Your task to perform on an android device: change the upload size in google photos Image 0: 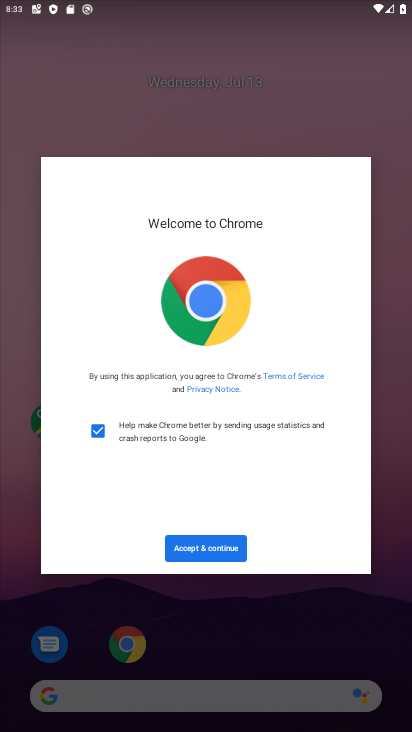
Step 0: press home button
Your task to perform on an android device: change the upload size in google photos Image 1: 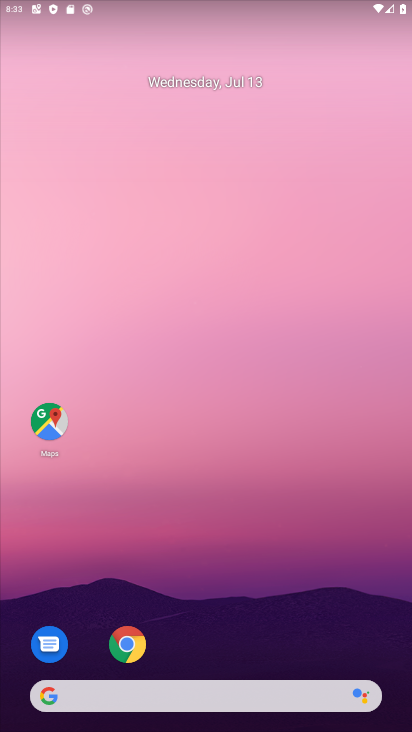
Step 1: drag from (309, 589) to (409, 455)
Your task to perform on an android device: change the upload size in google photos Image 2: 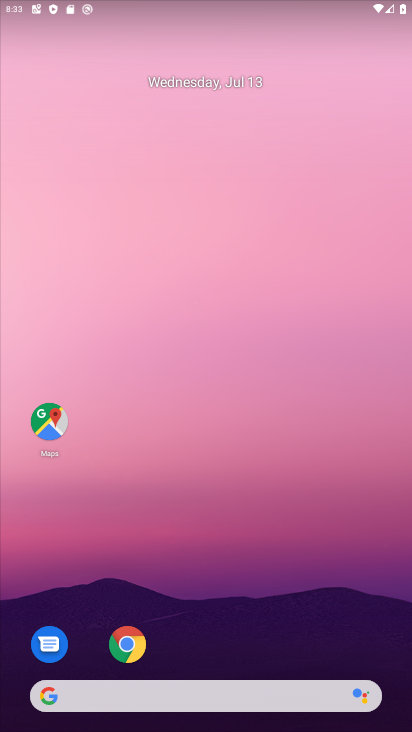
Step 2: drag from (236, 537) to (155, 80)
Your task to perform on an android device: change the upload size in google photos Image 3: 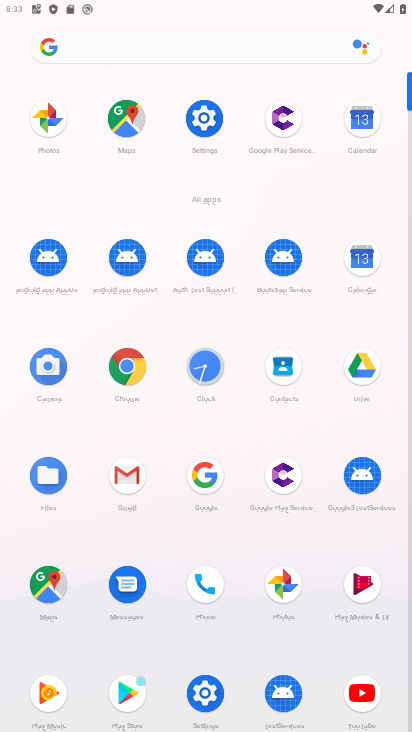
Step 3: click (294, 590)
Your task to perform on an android device: change the upload size in google photos Image 4: 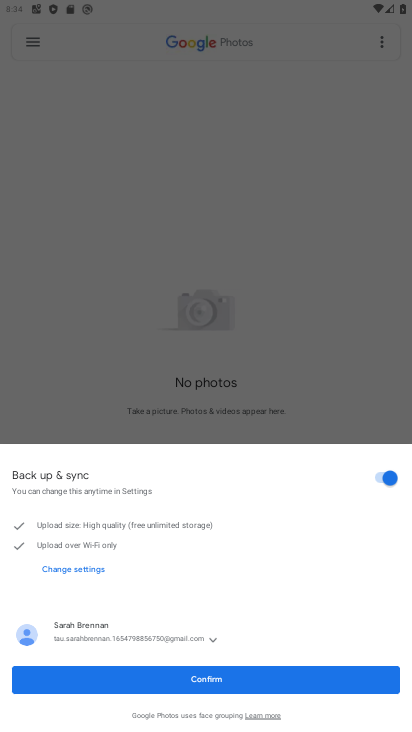
Step 4: click (272, 679)
Your task to perform on an android device: change the upload size in google photos Image 5: 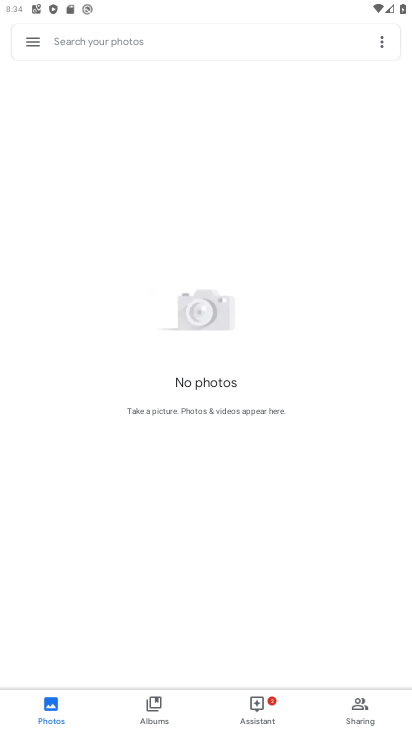
Step 5: click (31, 42)
Your task to perform on an android device: change the upload size in google photos Image 6: 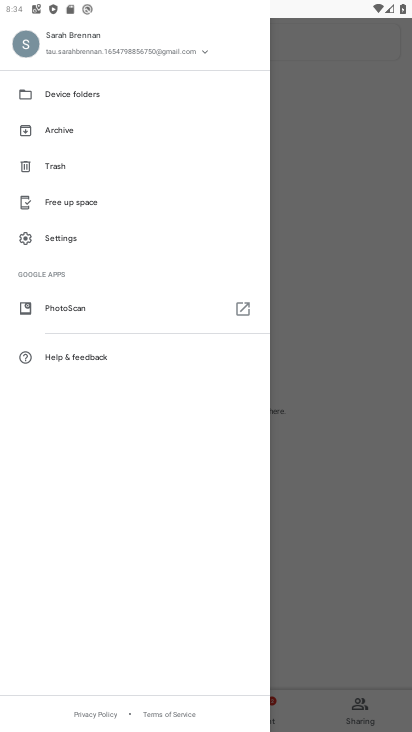
Step 6: click (72, 239)
Your task to perform on an android device: change the upload size in google photos Image 7: 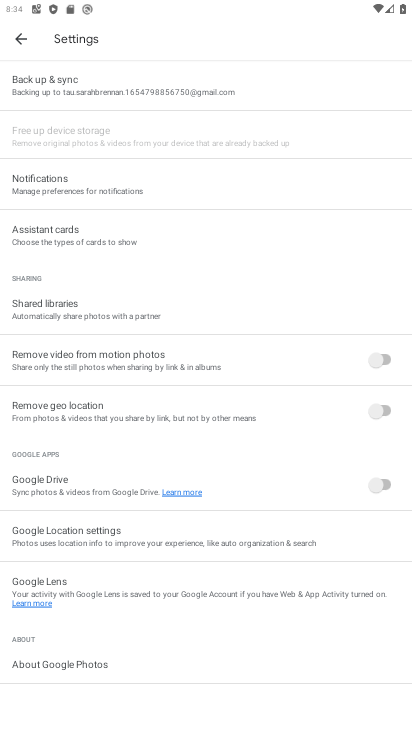
Step 7: click (96, 91)
Your task to perform on an android device: change the upload size in google photos Image 8: 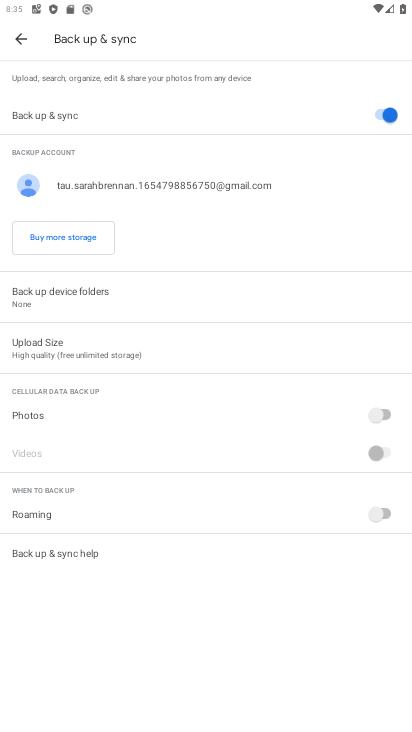
Step 8: click (70, 343)
Your task to perform on an android device: change the upload size in google photos Image 9: 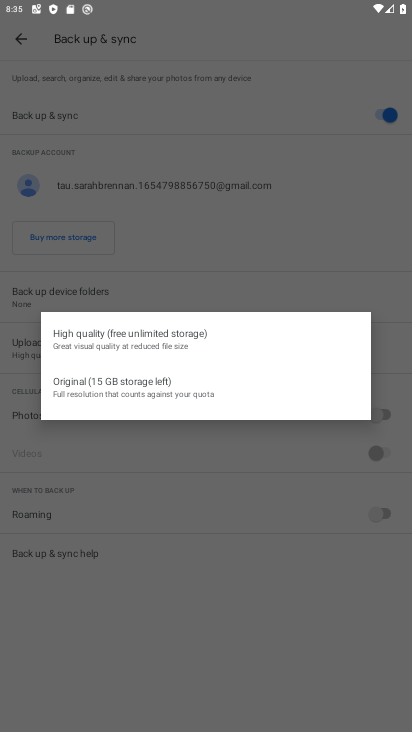
Step 9: click (129, 343)
Your task to perform on an android device: change the upload size in google photos Image 10: 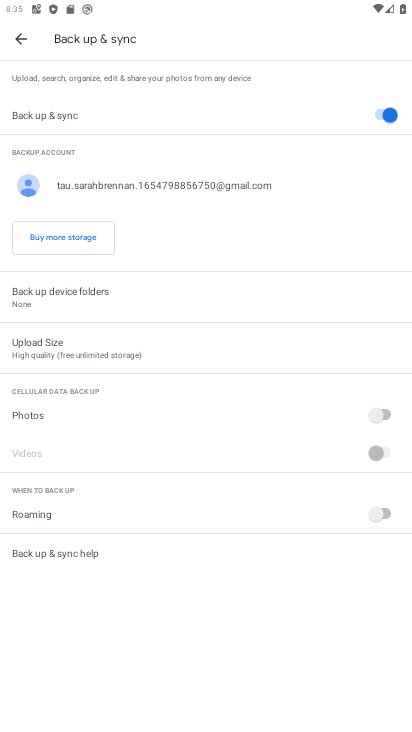
Step 10: task complete